Your task to perform on an android device: clear all cookies in the chrome app Image 0: 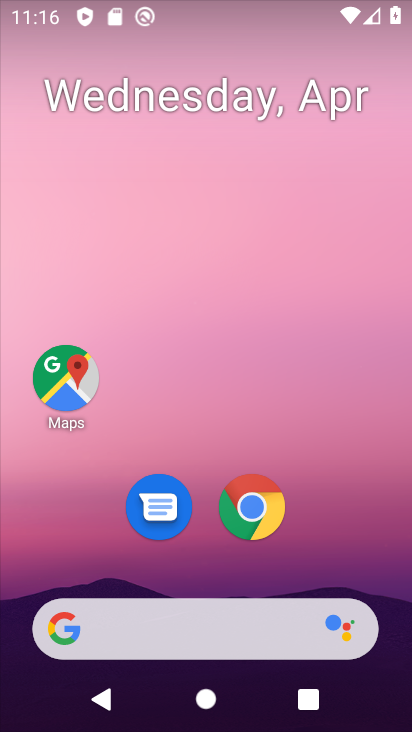
Step 0: drag from (336, 566) to (304, 82)
Your task to perform on an android device: clear all cookies in the chrome app Image 1: 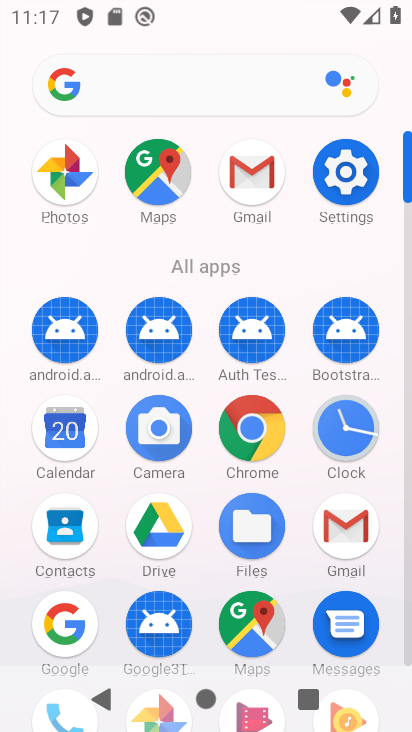
Step 1: click (245, 442)
Your task to perform on an android device: clear all cookies in the chrome app Image 2: 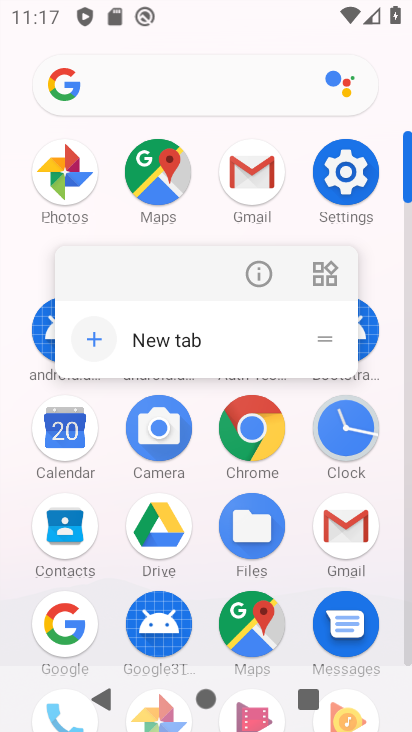
Step 2: click (243, 418)
Your task to perform on an android device: clear all cookies in the chrome app Image 3: 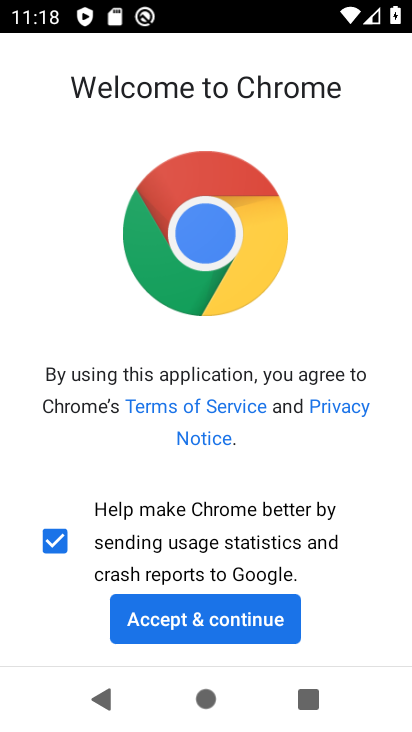
Step 3: click (197, 630)
Your task to perform on an android device: clear all cookies in the chrome app Image 4: 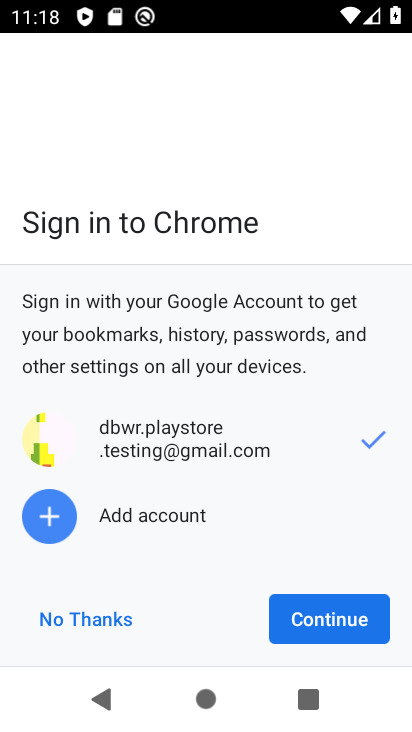
Step 4: click (309, 628)
Your task to perform on an android device: clear all cookies in the chrome app Image 5: 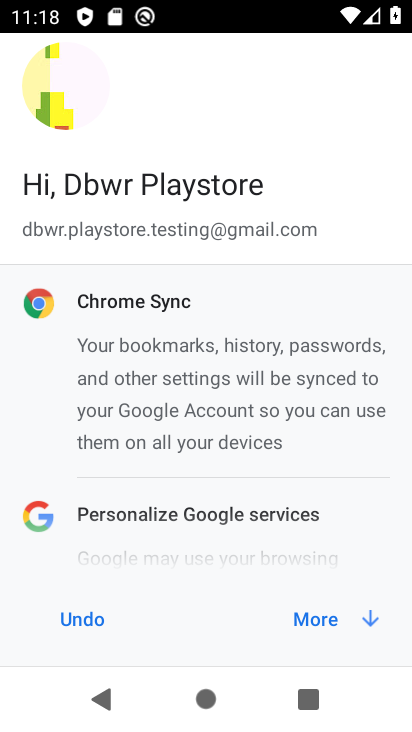
Step 5: click (306, 626)
Your task to perform on an android device: clear all cookies in the chrome app Image 6: 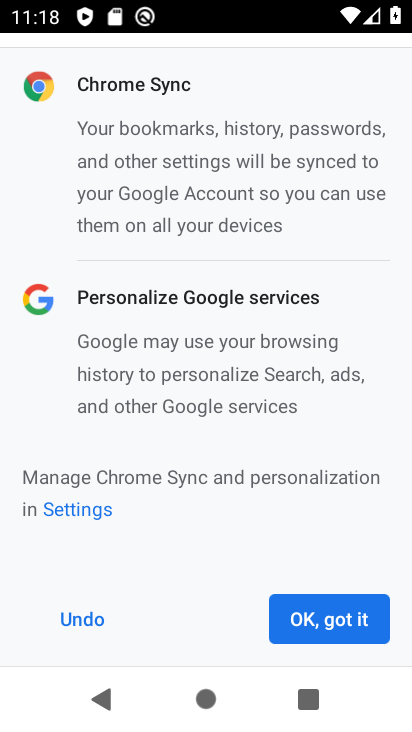
Step 6: click (306, 626)
Your task to perform on an android device: clear all cookies in the chrome app Image 7: 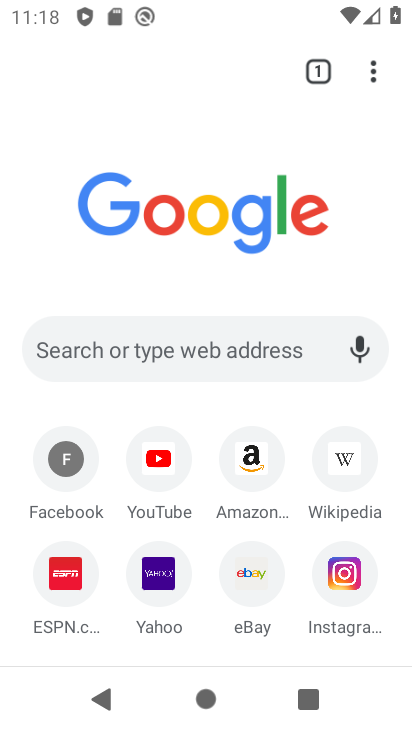
Step 7: click (374, 68)
Your task to perform on an android device: clear all cookies in the chrome app Image 8: 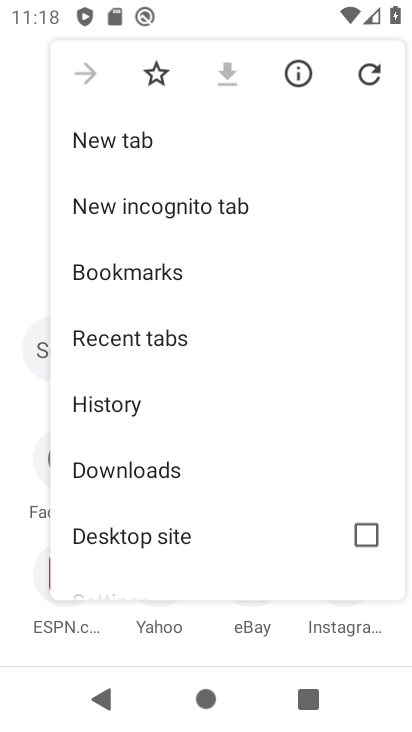
Step 8: click (138, 408)
Your task to perform on an android device: clear all cookies in the chrome app Image 9: 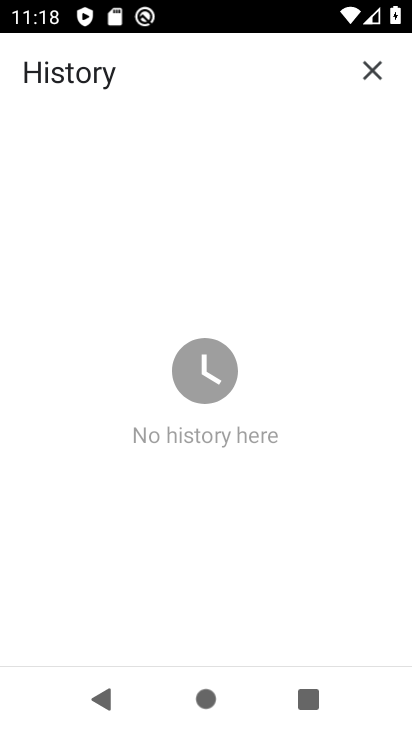
Step 9: task complete